Your task to perform on an android device: delete browsing data in the chrome app Image 0: 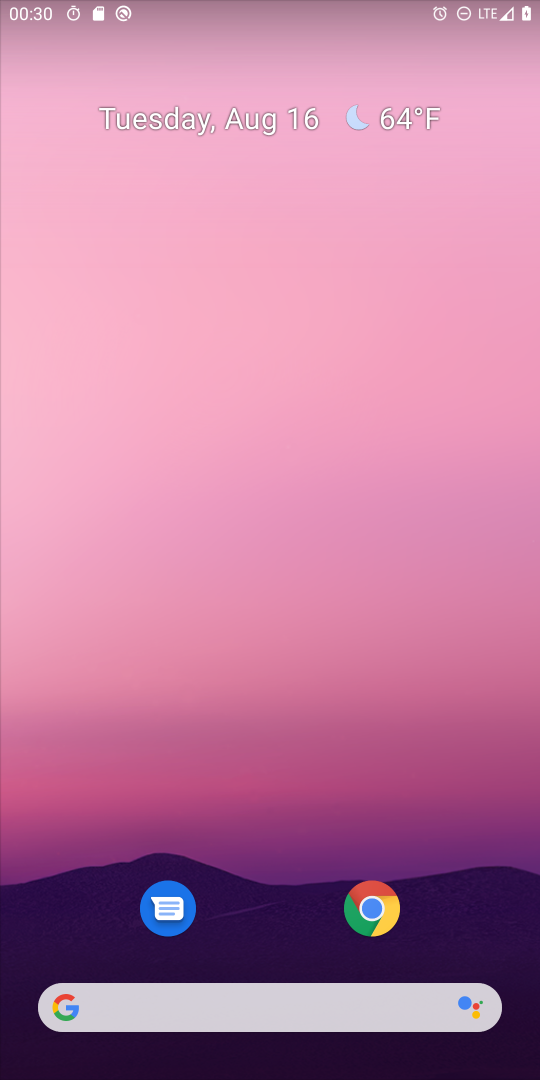
Step 0: click (365, 928)
Your task to perform on an android device: delete browsing data in the chrome app Image 1: 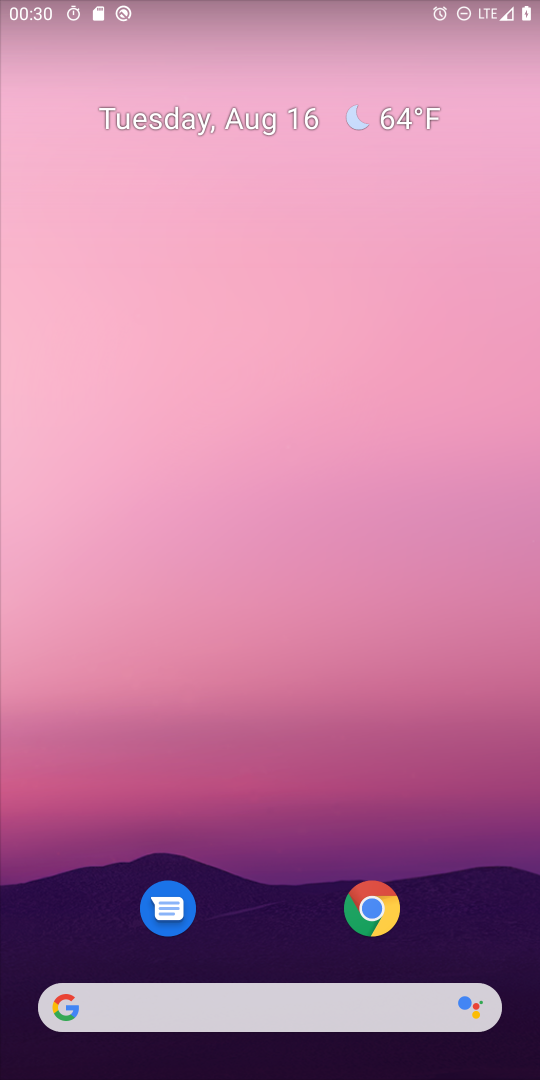
Step 1: click (365, 928)
Your task to perform on an android device: delete browsing data in the chrome app Image 2: 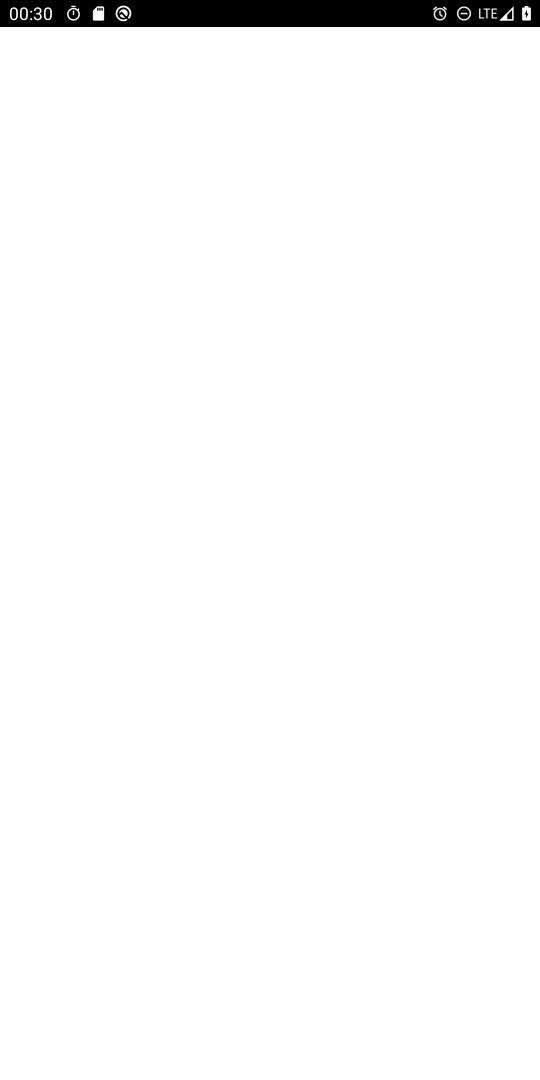
Step 2: click (365, 928)
Your task to perform on an android device: delete browsing data in the chrome app Image 3: 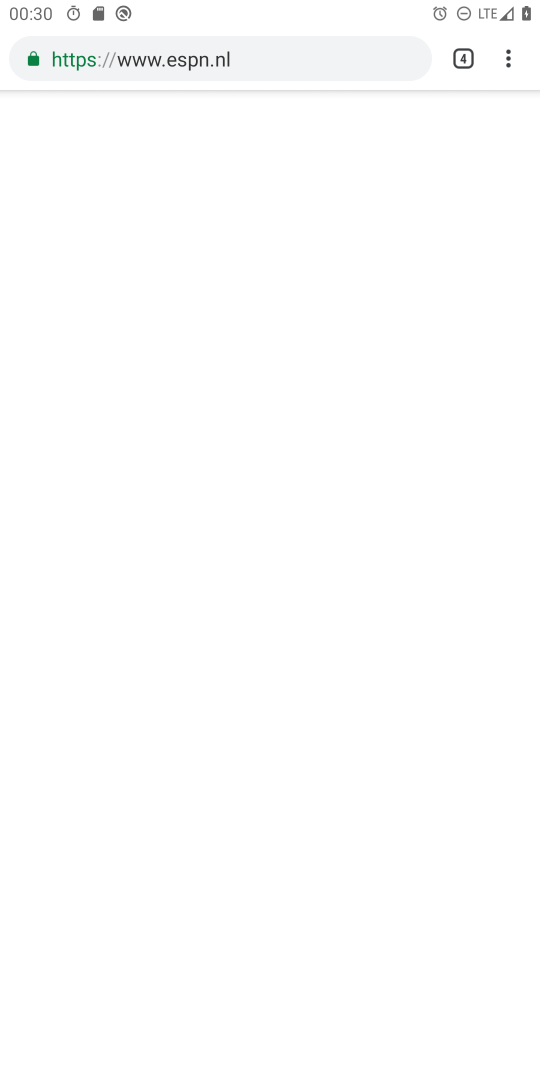
Step 3: click (519, 64)
Your task to perform on an android device: delete browsing data in the chrome app Image 4: 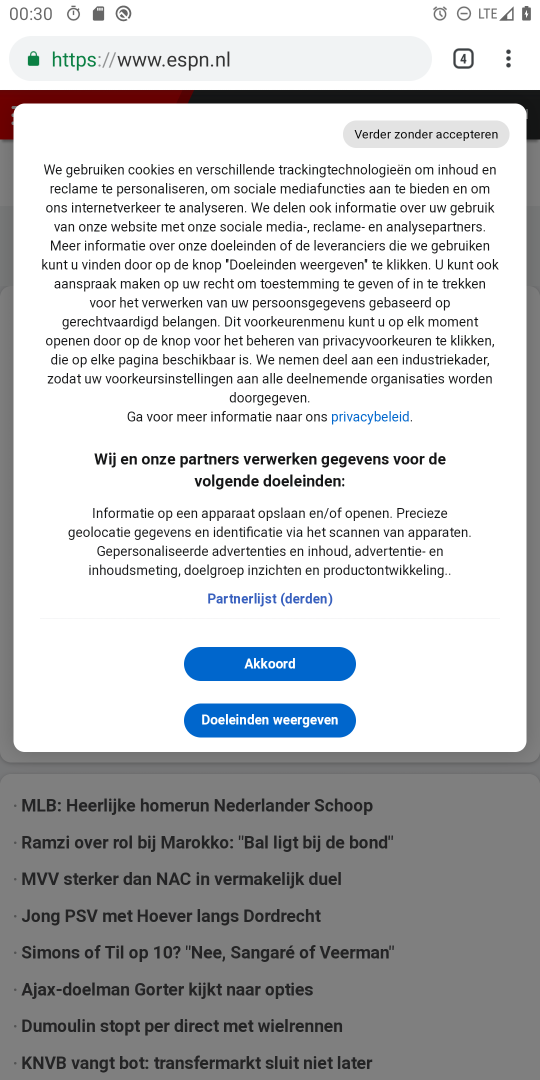
Step 4: click (508, 56)
Your task to perform on an android device: delete browsing data in the chrome app Image 5: 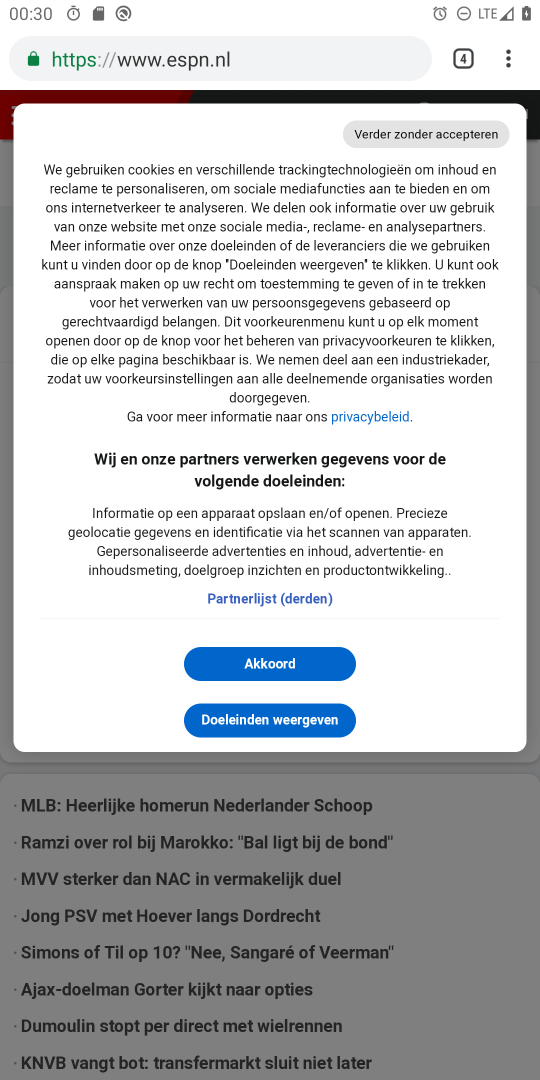
Step 5: click (508, 56)
Your task to perform on an android device: delete browsing data in the chrome app Image 6: 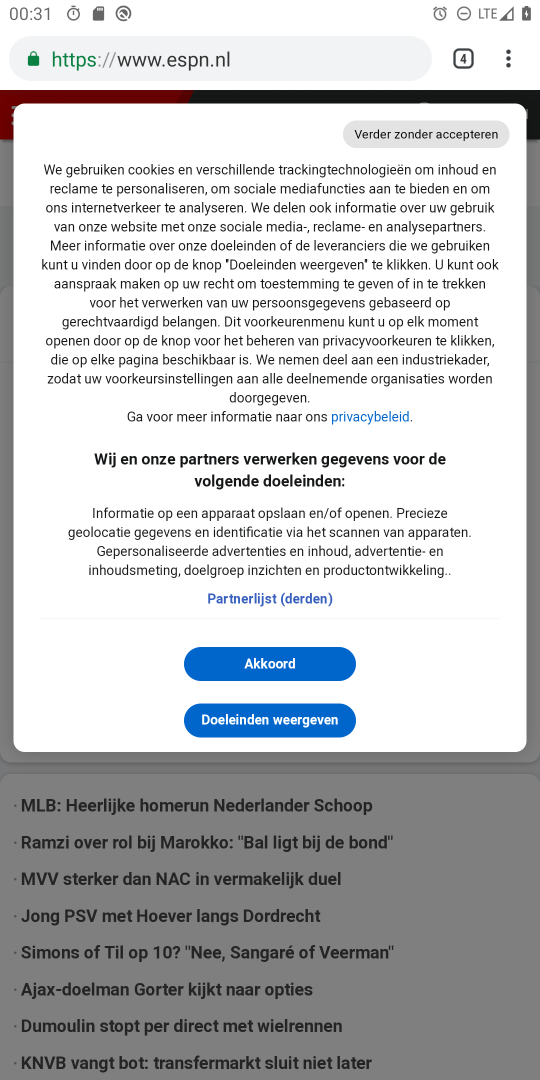
Step 6: click (508, 56)
Your task to perform on an android device: delete browsing data in the chrome app Image 7: 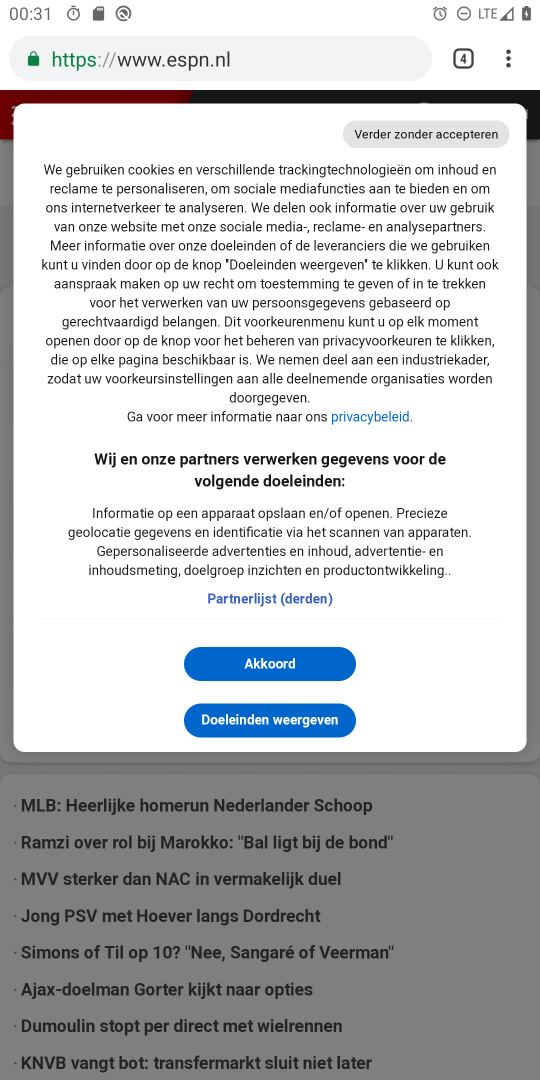
Step 7: click (505, 57)
Your task to perform on an android device: delete browsing data in the chrome app Image 8: 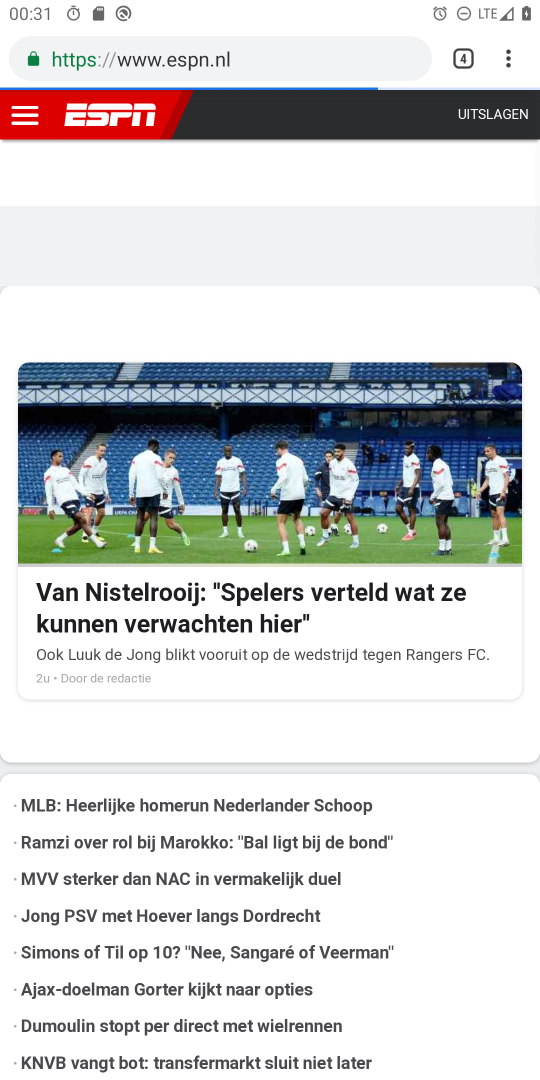
Step 8: click (505, 48)
Your task to perform on an android device: delete browsing data in the chrome app Image 9: 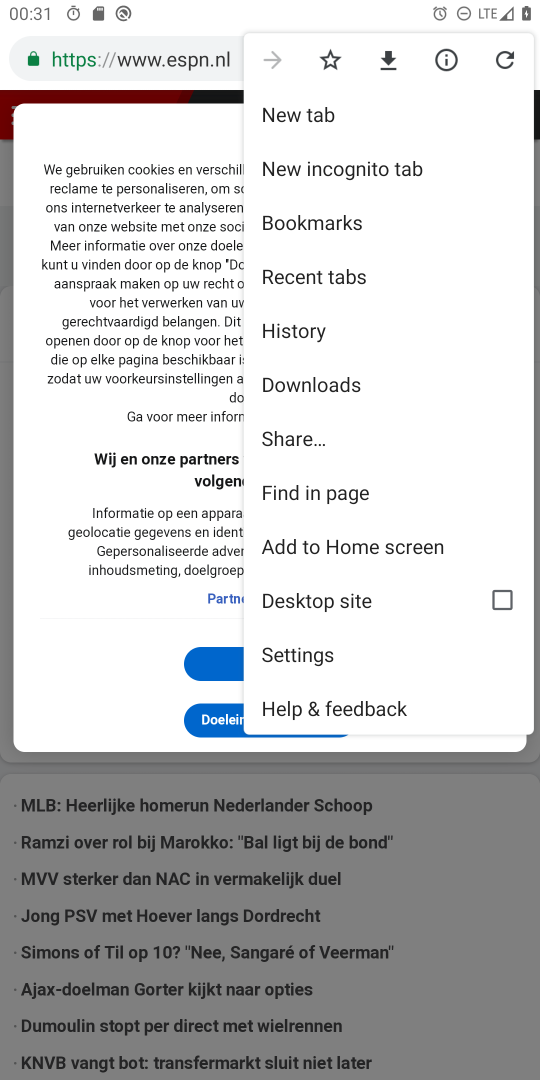
Step 9: click (305, 333)
Your task to perform on an android device: delete browsing data in the chrome app Image 10: 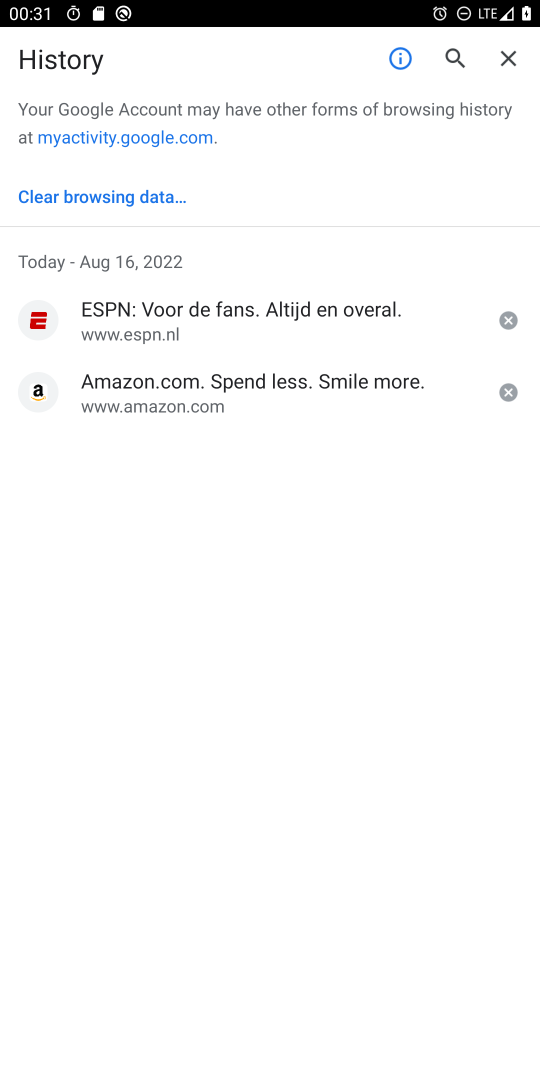
Step 10: click (121, 201)
Your task to perform on an android device: delete browsing data in the chrome app Image 11: 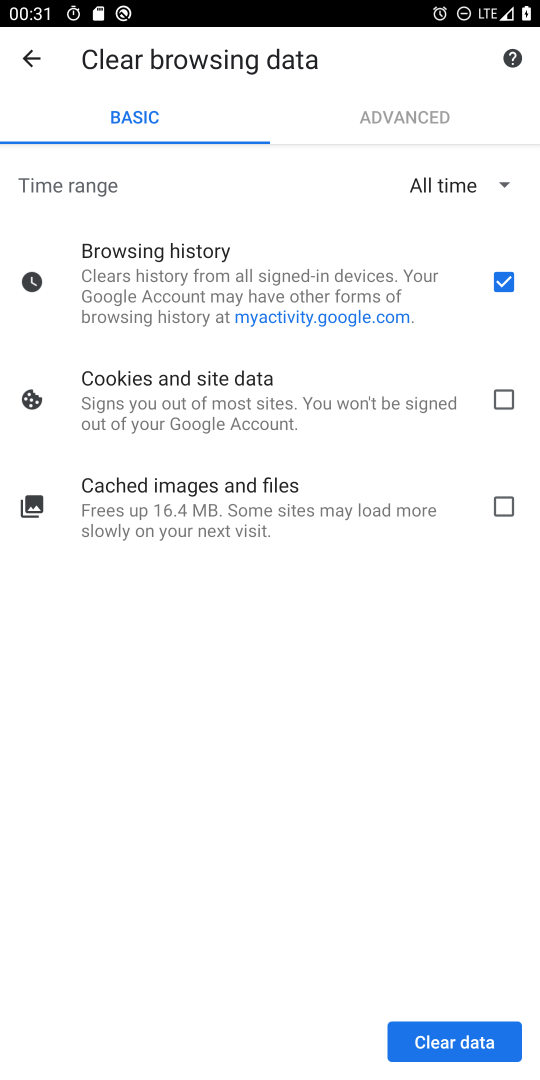
Step 11: click (444, 1045)
Your task to perform on an android device: delete browsing data in the chrome app Image 12: 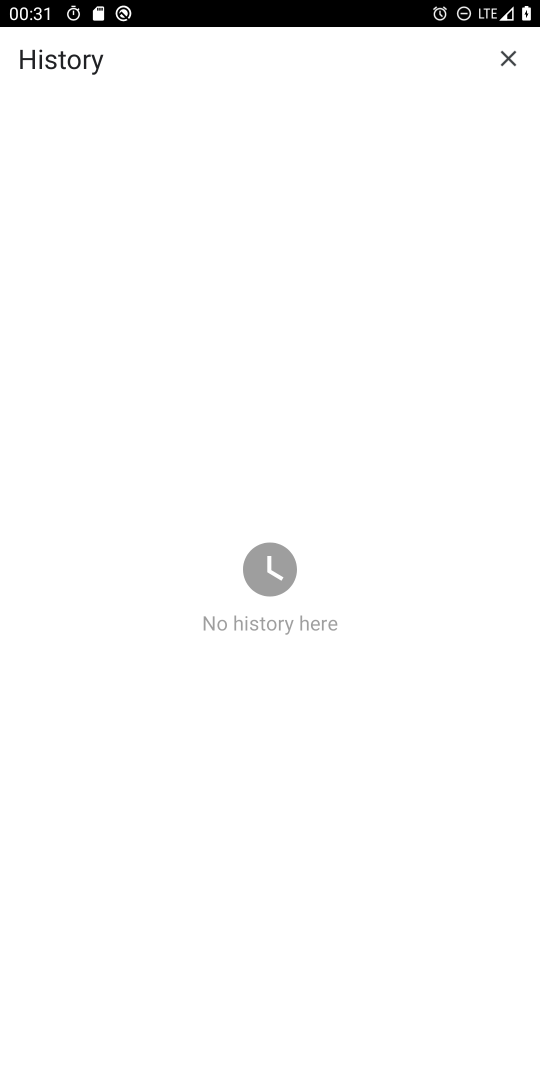
Step 12: task complete